Your task to perform on an android device: turn on wifi Image 0: 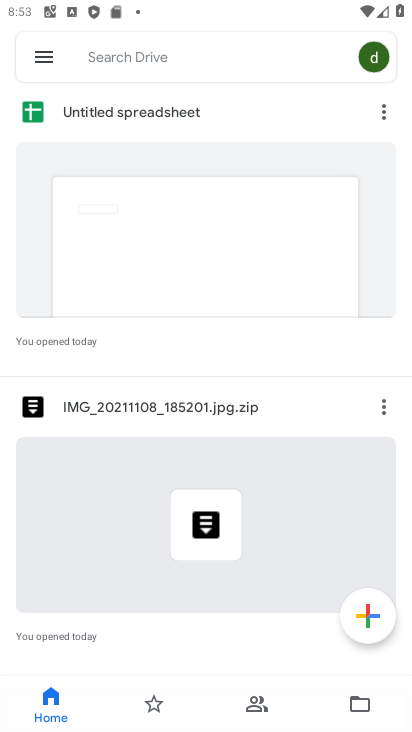
Step 0: press home button
Your task to perform on an android device: turn on wifi Image 1: 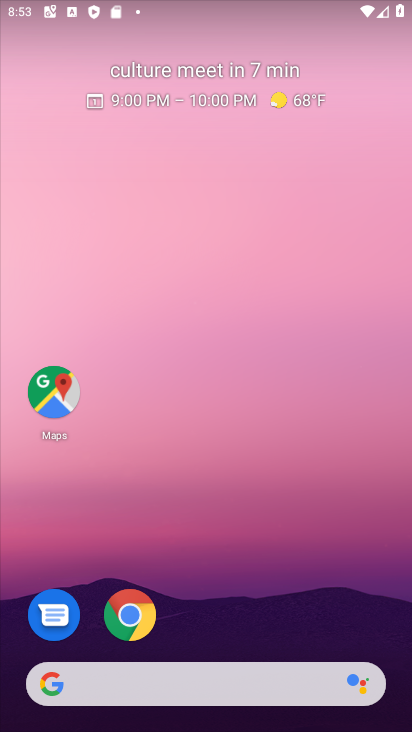
Step 1: drag from (409, 702) to (393, 196)
Your task to perform on an android device: turn on wifi Image 2: 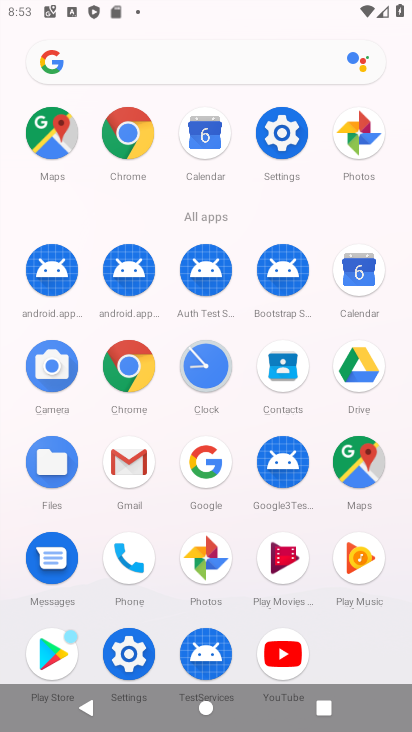
Step 2: click (270, 141)
Your task to perform on an android device: turn on wifi Image 3: 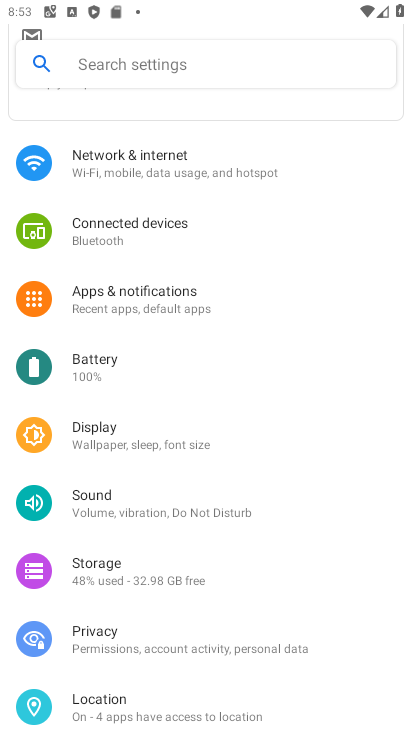
Step 3: click (183, 159)
Your task to perform on an android device: turn on wifi Image 4: 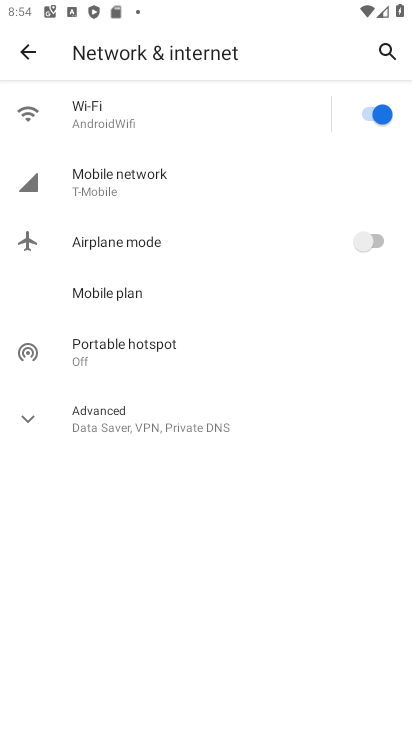
Step 4: task complete